Your task to perform on an android device: change your default location settings in chrome Image 0: 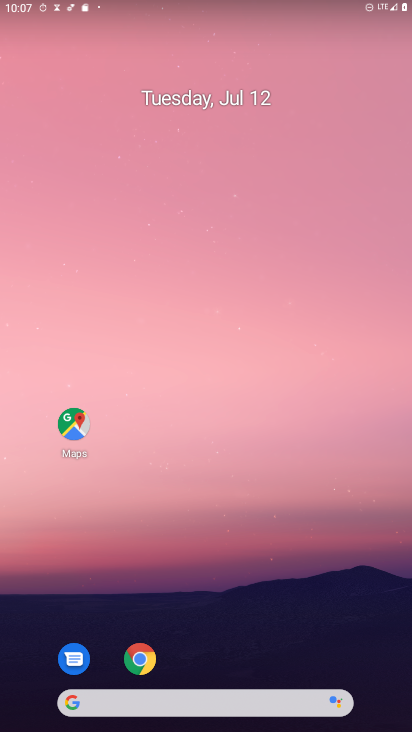
Step 0: click (140, 660)
Your task to perform on an android device: change your default location settings in chrome Image 1: 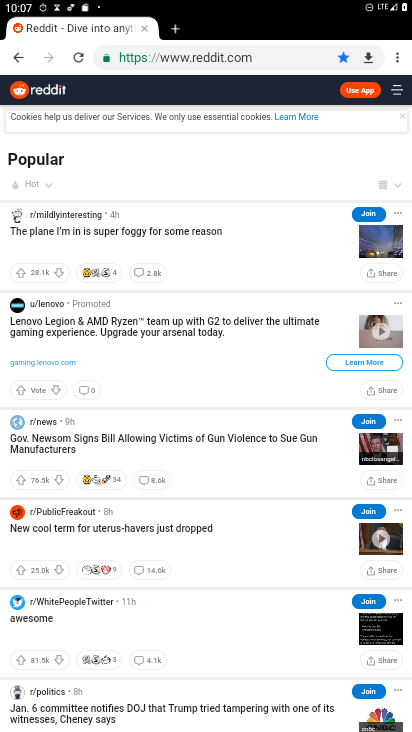
Step 1: click (396, 59)
Your task to perform on an android device: change your default location settings in chrome Image 2: 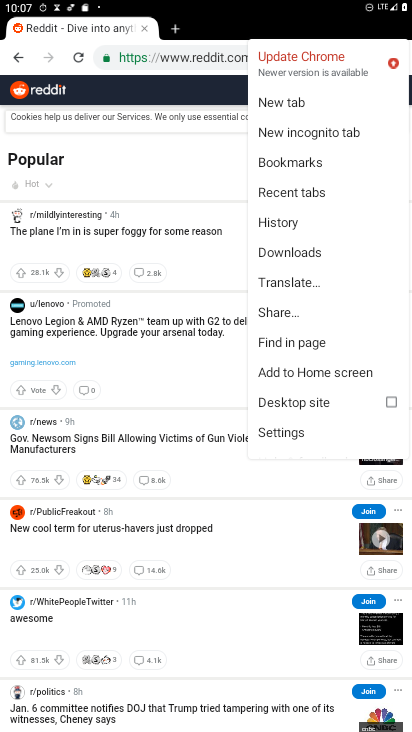
Step 2: click (288, 430)
Your task to perform on an android device: change your default location settings in chrome Image 3: 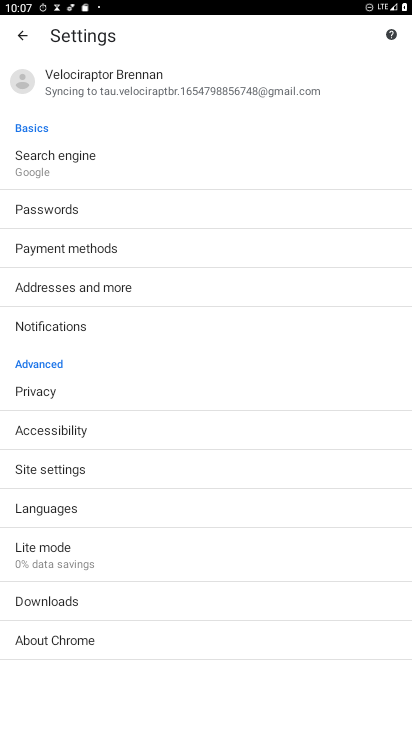
Step 3: click (64, 468)
Your task to perform on an android device: change your default location settings in chrome Image 4: 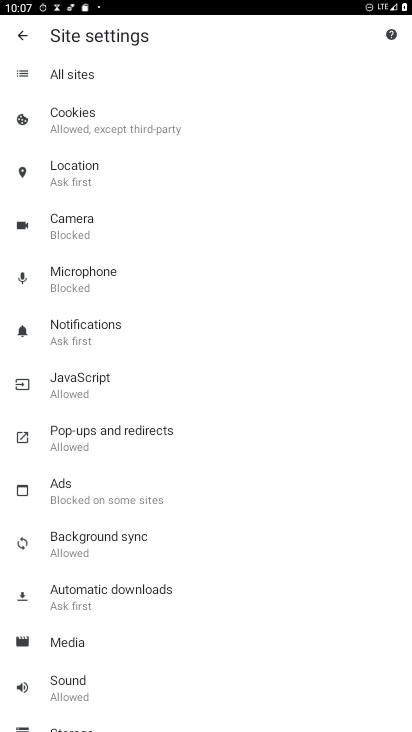
Step 4: click (76, 183)
Your task to perform on an android device: change your default location settings in chrome Image 5: 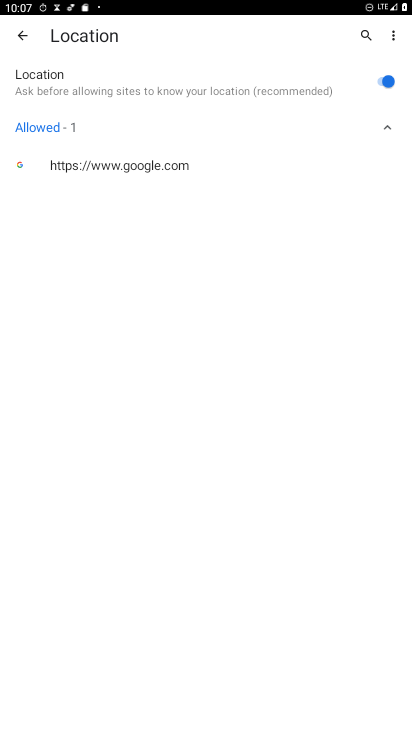
Step 5: click (393, 89)
Your task to perform on an android device: change your default location settings in chrome Image 6: 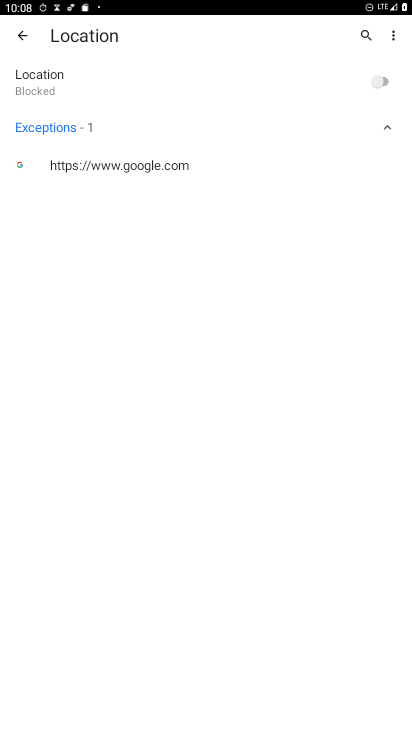
Step 6: task complete